Your task to perform on an android device: Show me popular games on the Play Store Image 0: 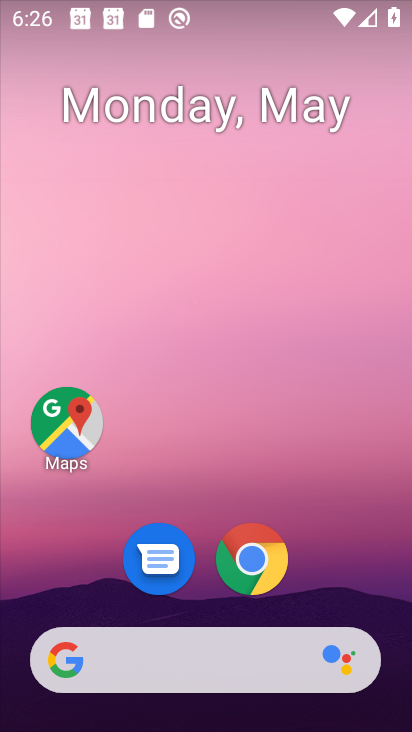
Step 0: drag from (404, 639) to (333, 114)
Your task to perform on an android device: Show me popular games on the Play Store Image 1: 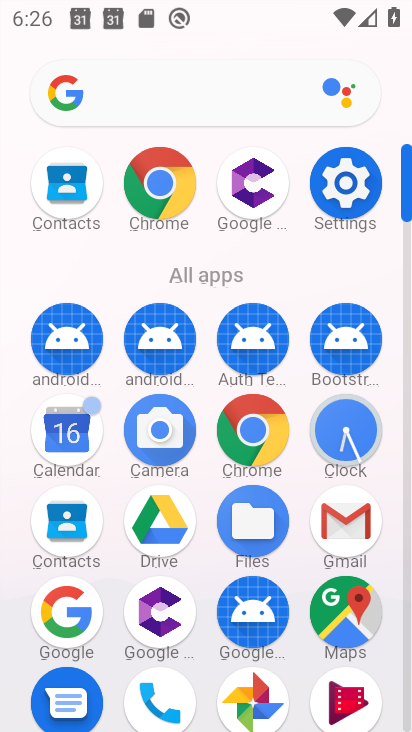
Step 1: drag from (201, 673) to (253, 153)
Your task to perform on an android device: Show me popular games on the Play Store Image 2: 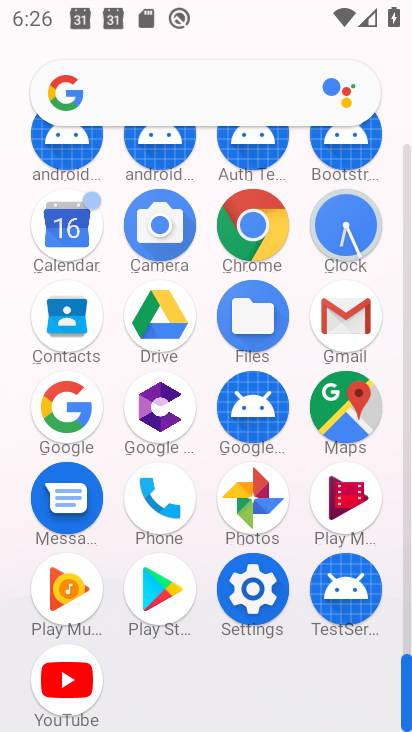
Step 2: click (160, 587)
Your task to perform on an android device: Show me popular games on the Play Store Image 3: 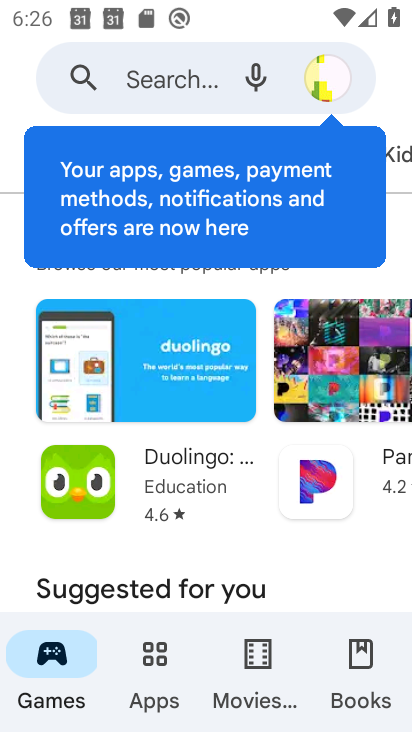
Step 3: task complete